Your task to perform on an android device: Open settings on Google Maps Image 0: 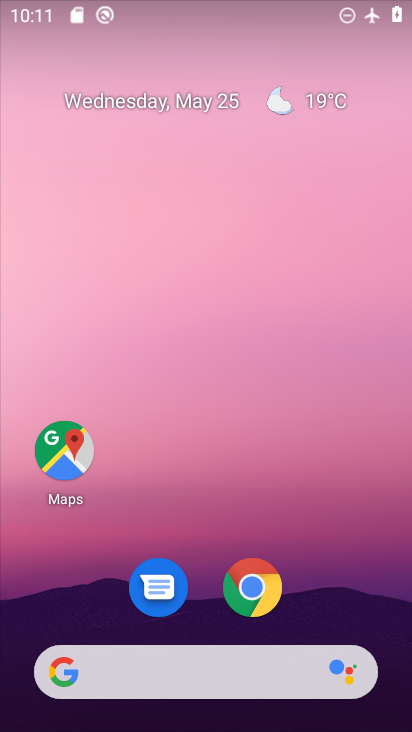
Step 0: click (64, 451)
Your task to perform on an android device: Open settings on Google Maps Image 1: 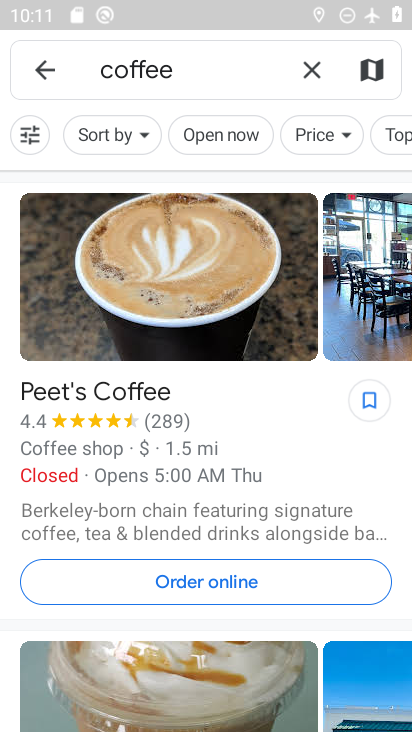
Step 1: click (309, 68)
Your task to perform on an android device: Open settings on Google Maps Image 2: 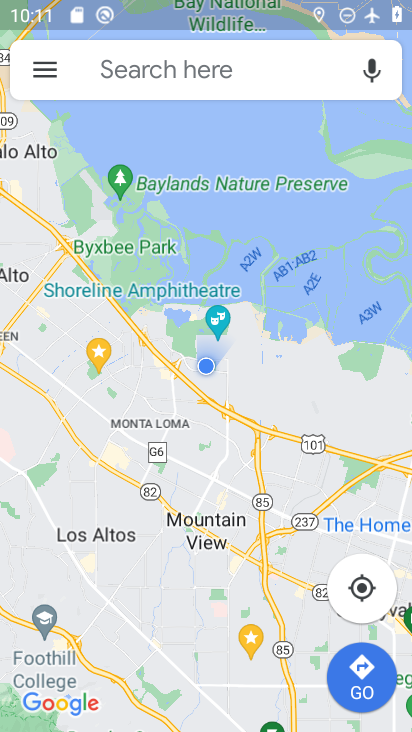
Step 2: click (35, 67)
Your task to perform on an android device: Open settings on Google Maps Image 3: 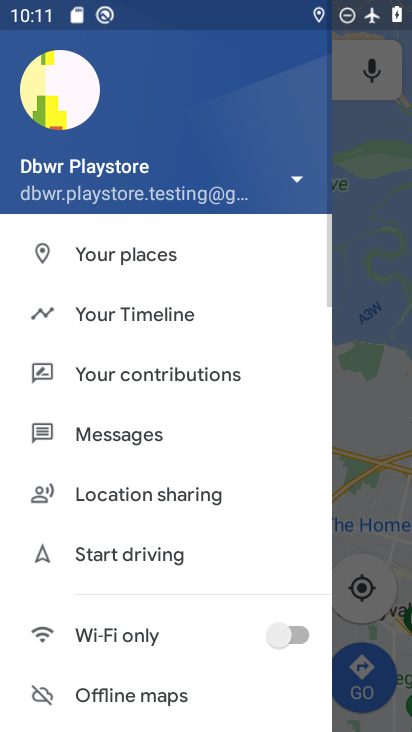
Step 3: drag from (241, 601) to (226, 114)
Your task to perform on an android device: Open settings on Google Maps Image 4: 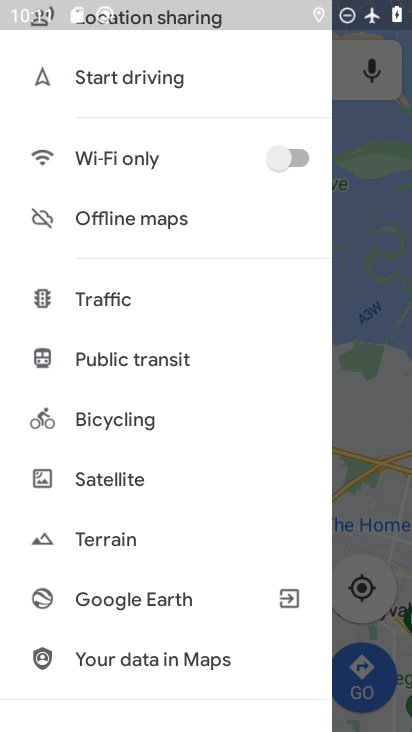
Step 4: drag from (239, 655) to (225, 140)
Your task to perform on an android device: Open settings on Google Maps Image 5: 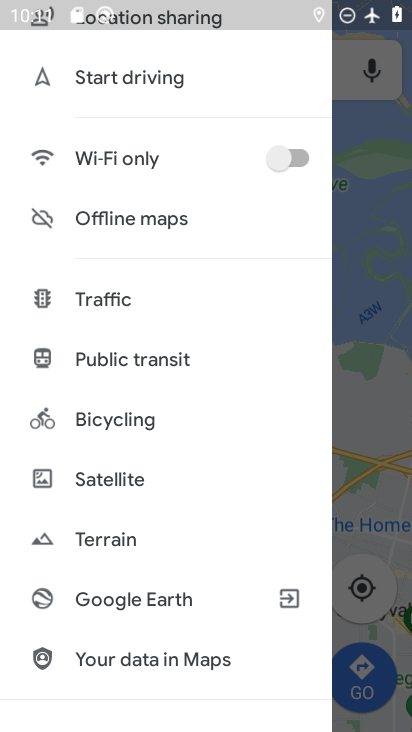
Step 5: drag from (230, 620) to (207, 173)
Your task to perform on an android device: Open settings on Google Maps Image 6: 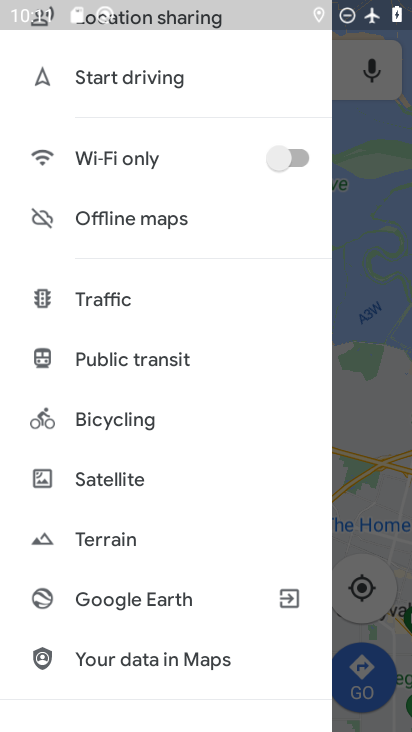
Step 6: drag from (237, 586) to (226, 92)
Your task to perform on an android device: Open settings on Google Maps Image 7: 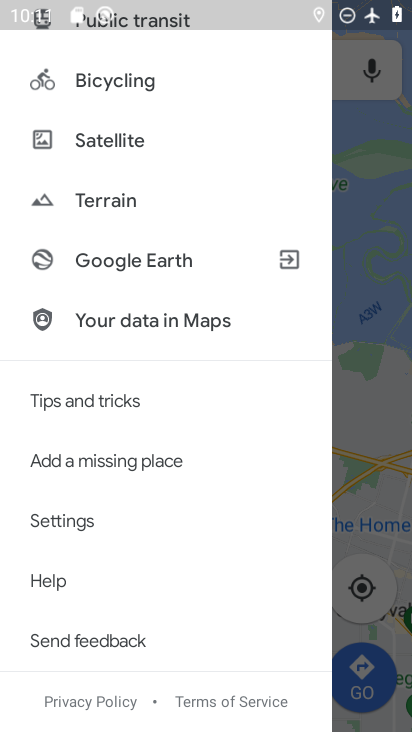
Step 7: click (60, 528)
Your task to perform on an android device: Open settings on Google Maps Image 8: 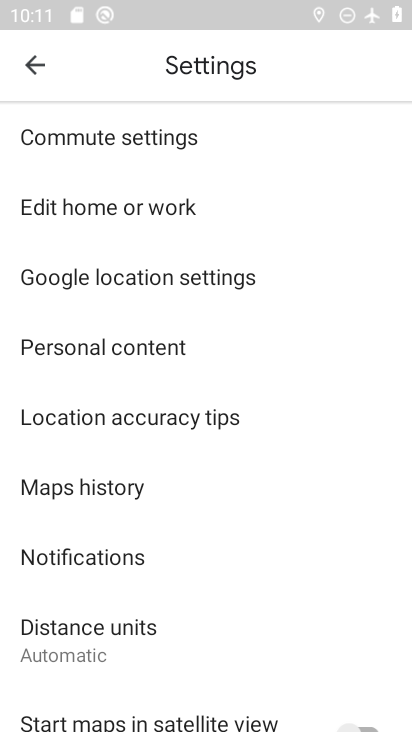
Step 8: click (104, 341)
Your task to perform on an android device: Open settings on Google Maps Image 9: 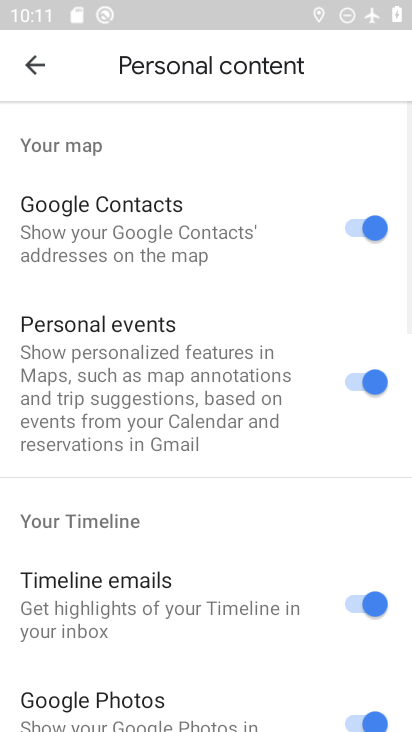
Step 9: task complete